Your task to perform on an android device: turn on location history Image 0: 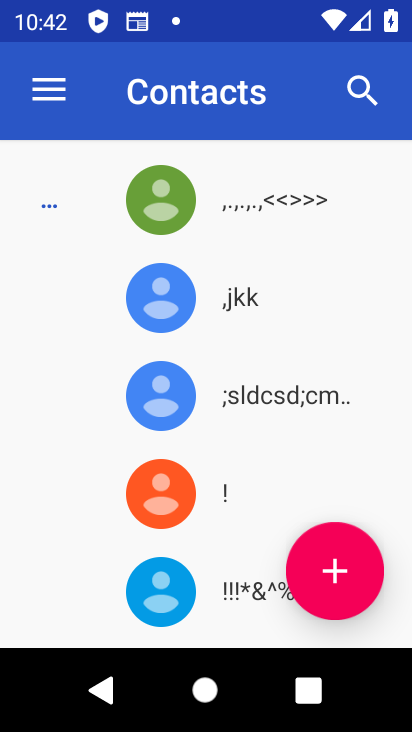
Step 0: press home button
Your task to perform on an android device: turn on location history Image 1: 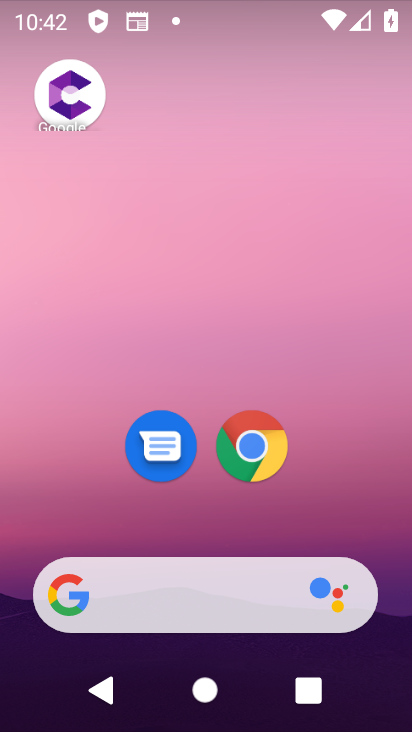
Step 1: drag from (181, 561) to (266, 102)
Your task to perform on an android device: turn on location history Image 2: 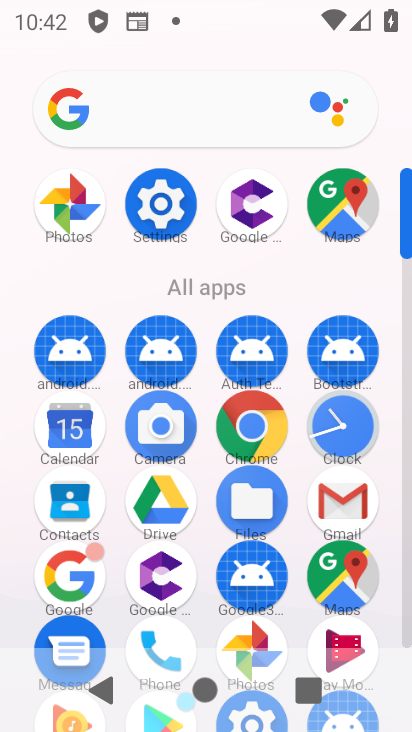
Step 2: drag from (213, 607) to (255, 420)
Your task to perform on an android device: turn on location history Image 3: 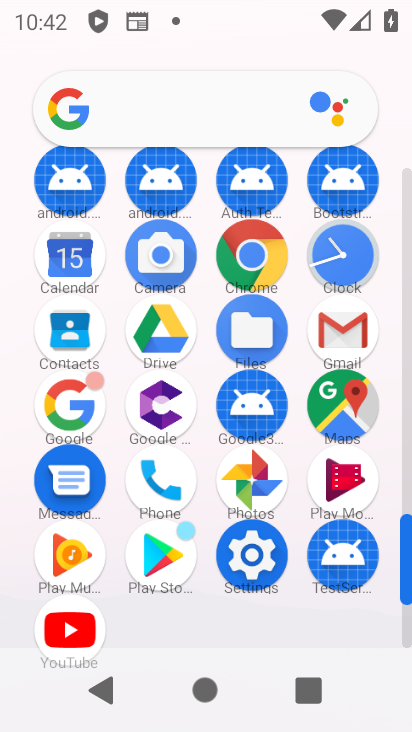
Step 3: click (261, 570)
Your task to perform on an android device: turn on location history Image 4: 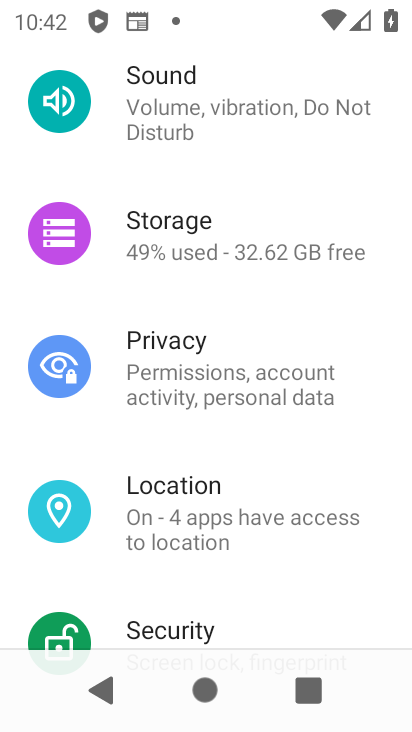
Step 4: click (225, 521)
Your task to perform on an android device: turn on location history Image 5: 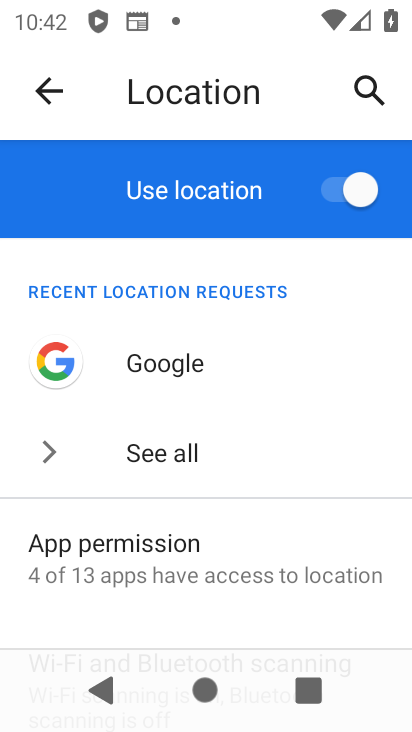
Step 5: drag from (186, 573) to (250, 294)
Your task to perform on an android device: turn on location history Image 6: 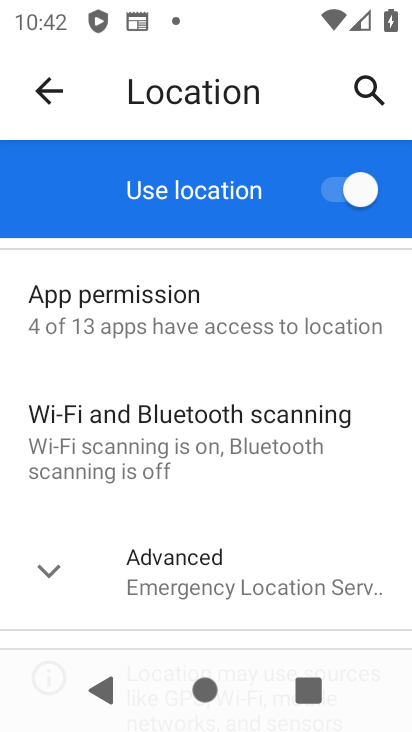
Step 6: click (157, 583)
Your task to perform on an android device: turn on location history Image 7: 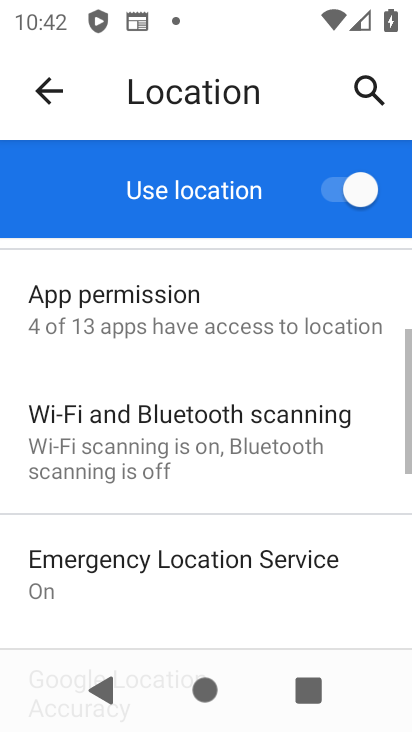
Step 7: drag from (155, 571) to (269, 185)
Your task to perform on an android device: turn on location history Image 8: 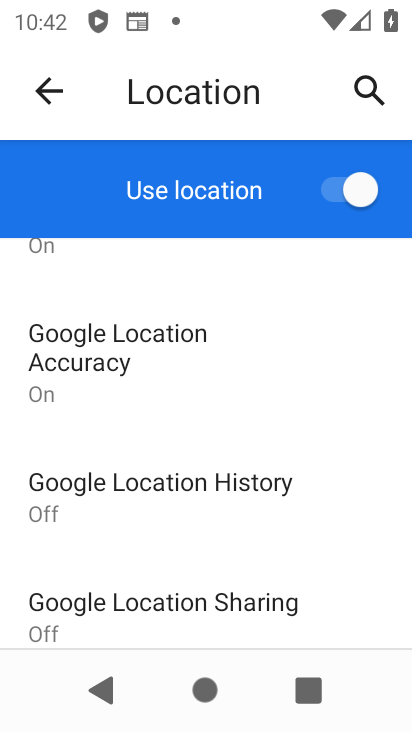
Step 8: click (305, 499)
Your task to perform on an android device: turn on location history Image 9: 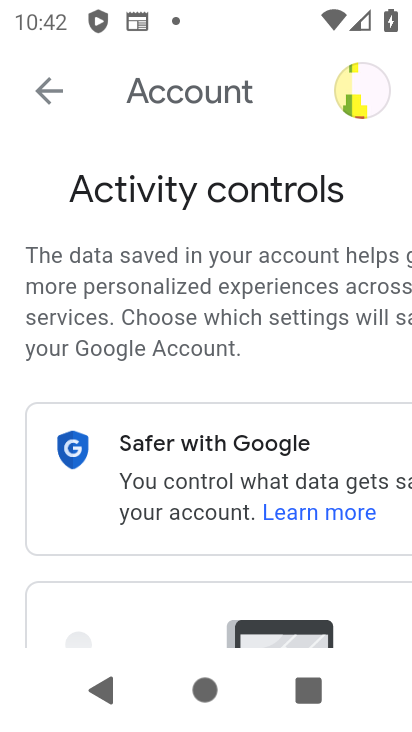
Step 9: drag from (159, 554) to (256, 205)
Your task to perform on an android device: turn on location history Image 10: 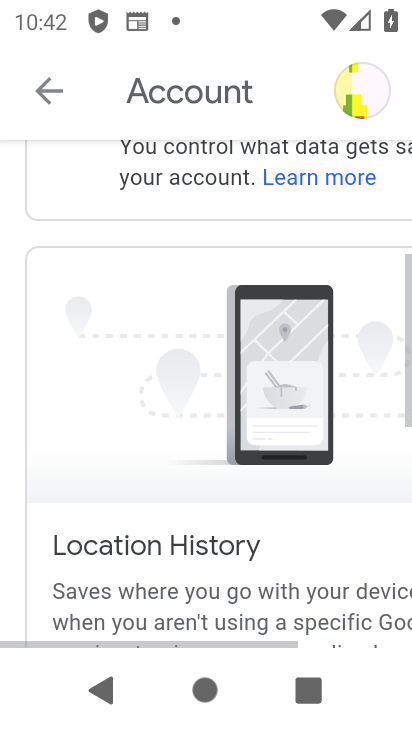
Step 10: drag from (234, 532) to (328, 203)
Your task to perform on an android device: turn on location history Image 11: 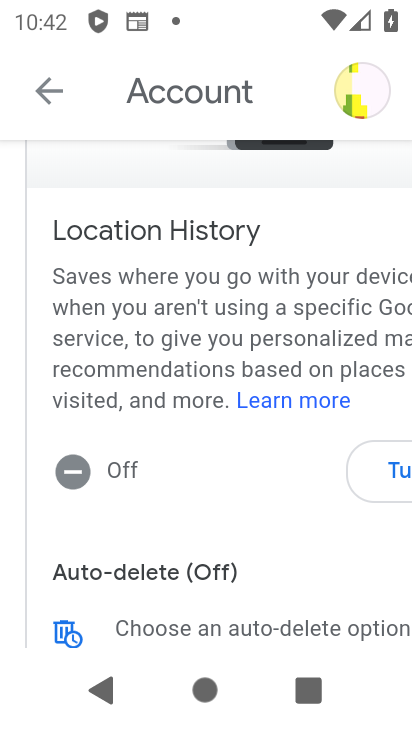
Step 11: click (385, 477)
Your task to perform on an android device: turn on location history Image 12: 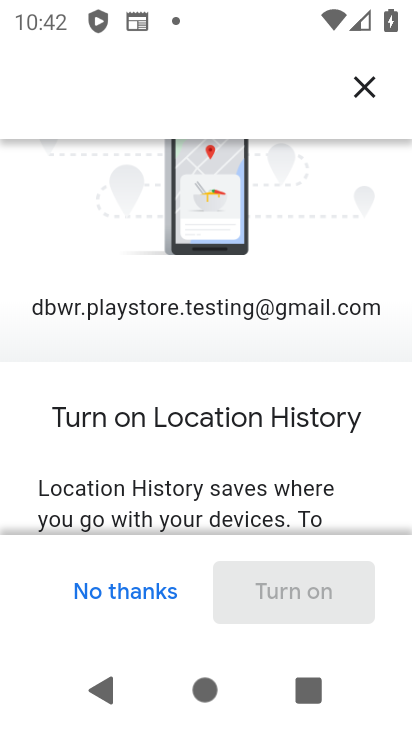
Step 12: drag from (194, 484) to (273, 162)
Your task to perform on an android device: turn on location history Image 13: 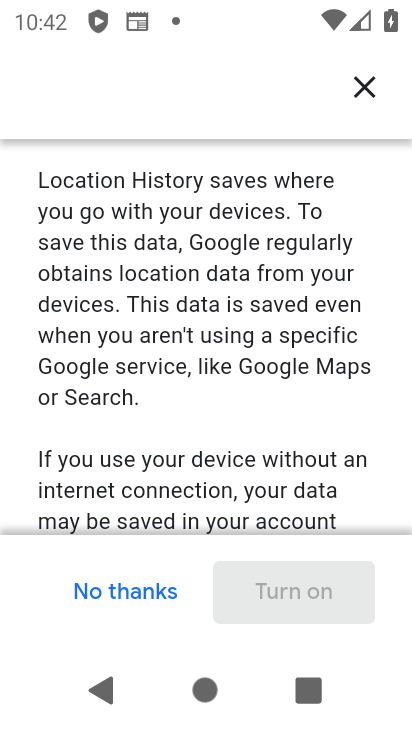
Step 13: drag from (216, 445) to (314, 206)
Your task to perform on an android device: turn on location history Image 14: 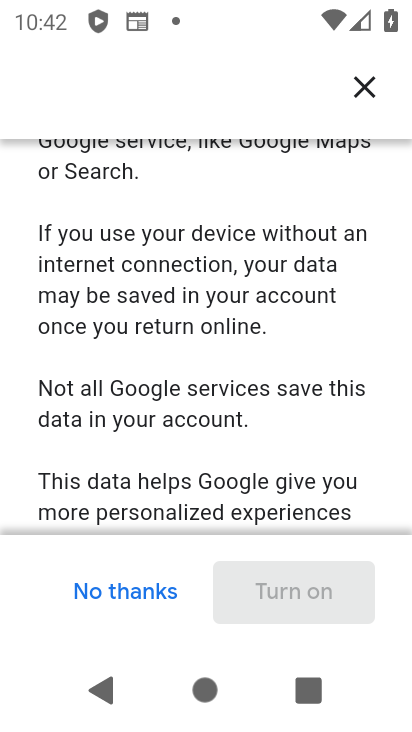
Step 14: drag from (305, 425) to (393, 123)
Your task to perform on an android device: turn on location history Image 15: 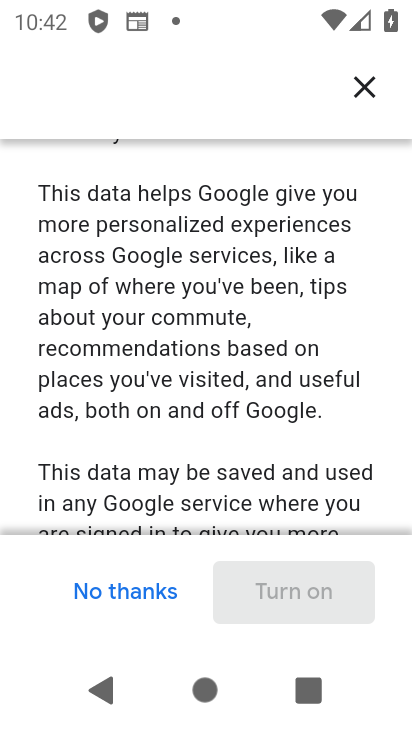
Step 15: drag from (285, 421) to (365, 125)
Your task to perform on an android device: turn on location history Image 16: 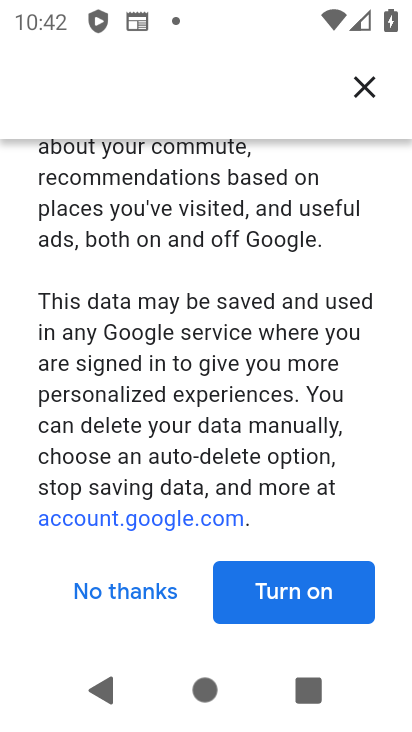
Step 16: click (342, 585)
Your task to perform on an android device: turn on location history Image 17: 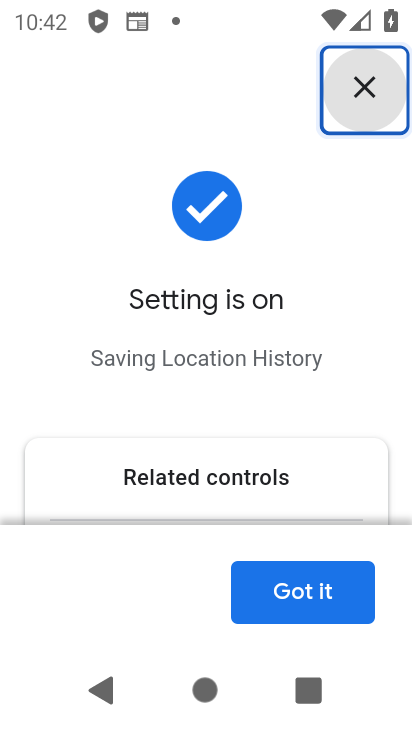
Step 17: click (305, 585)
Your task to perform on an android device: turn on location history Image 18: 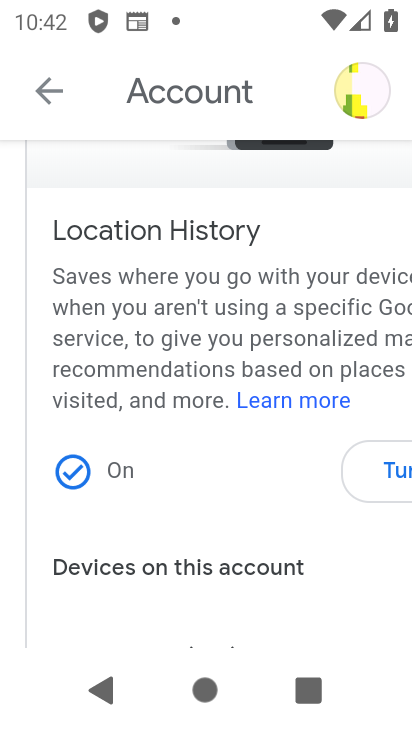
Step 18: task complete